Your task to perform on an android device: Open calendar and show me the second week of next month Image 0: 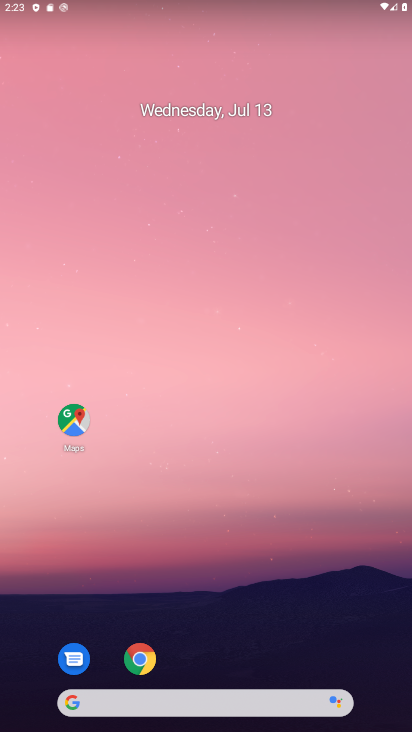
Step 0: drag from (128, 602) to (167, 269)
Your task to perform on an android device: Open calendar and show me the second week of next month Image 1: 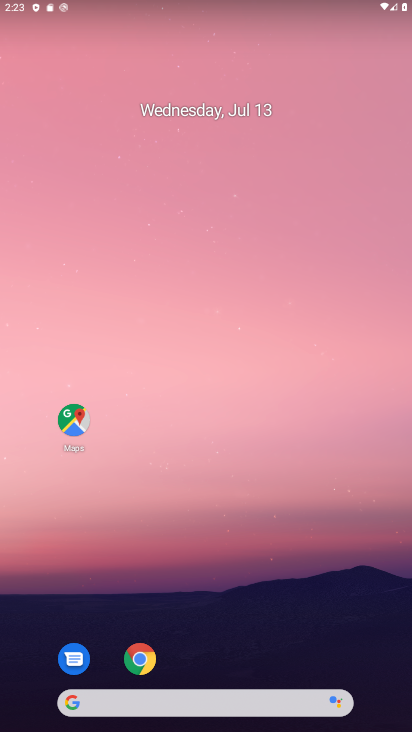
Step 1: click (238, 243)
Your task to perform on an android device: Open calendar and show me the second week of next month Image 2: 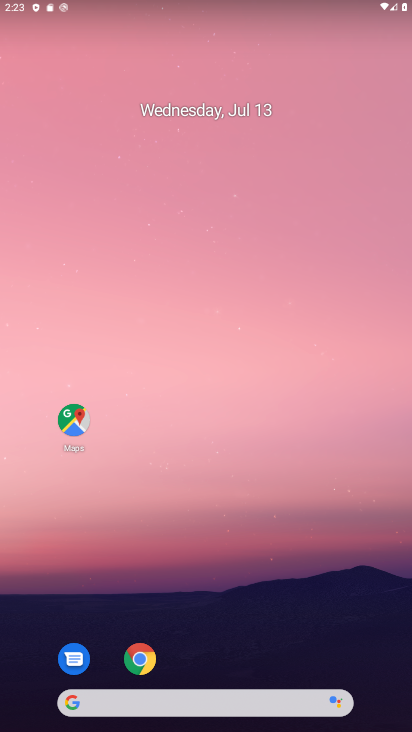
Step 2: drag from (228, 656) to (215, 284)
Your task to perform on an android device: Open calendar and show me the second week of next month Image 3: 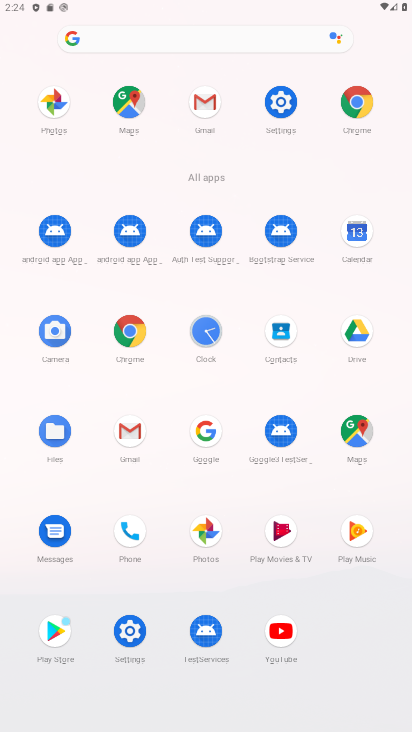
Step 3: click (361, 226)
Your task to perform on an android device: Open calendar and show me the second week of next month Image 4: 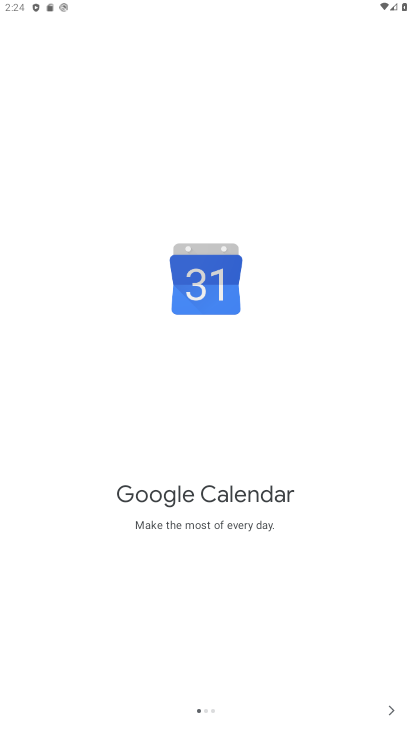
Step 4: click (387, 702)
Your task to perform on an android device: Open calendar and show me the second week of next month Image 5: 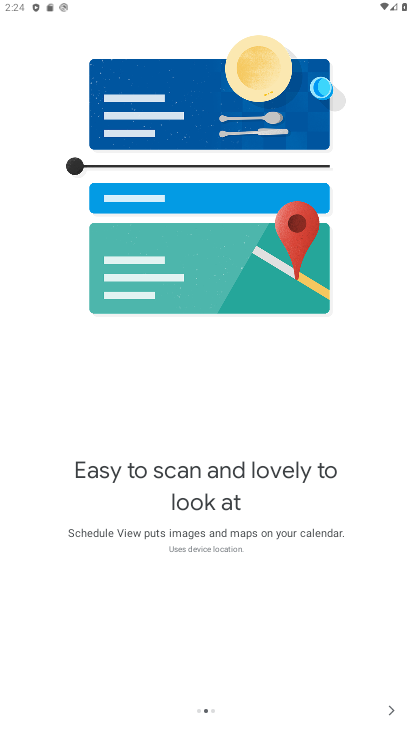
Step 5: click (387, 706)
Your task to perform on an android device: Open calendar and show me the second week of next month Image 6: 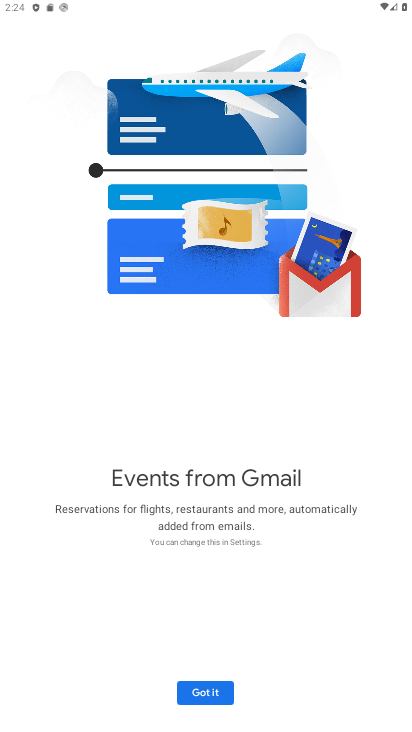
Step 6: click (371, 704)
Your task to perform on an android device: Open calendar and show me the second week of next month Image 7: 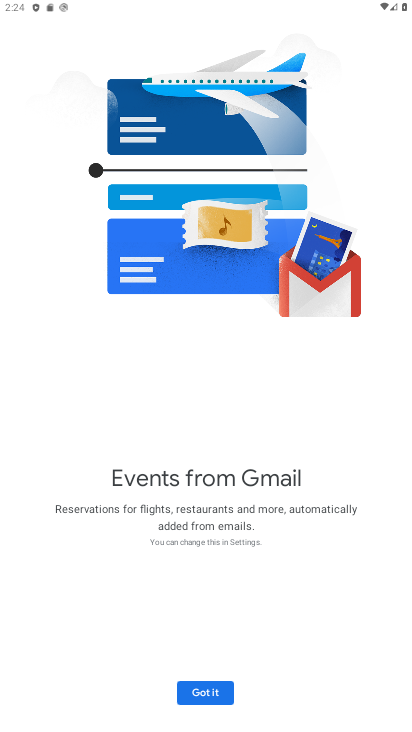
Step 7: click (194, 691)
Your task to perform on an android device: Open calendar and show me the second week of next month Image 8: 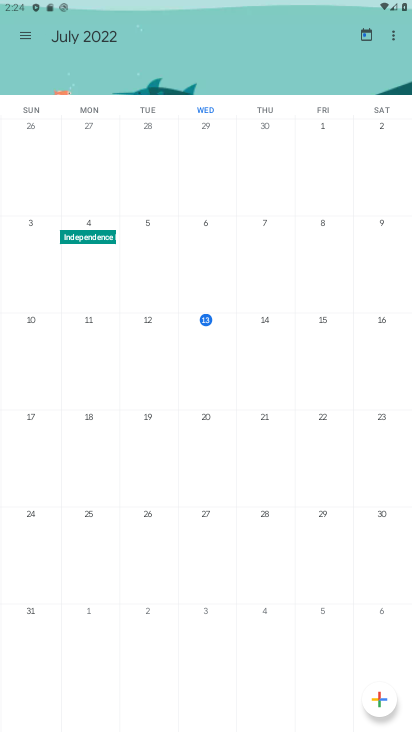
Step 8: task complete